Your task to perform on an android device: What is the news today? Image 0: 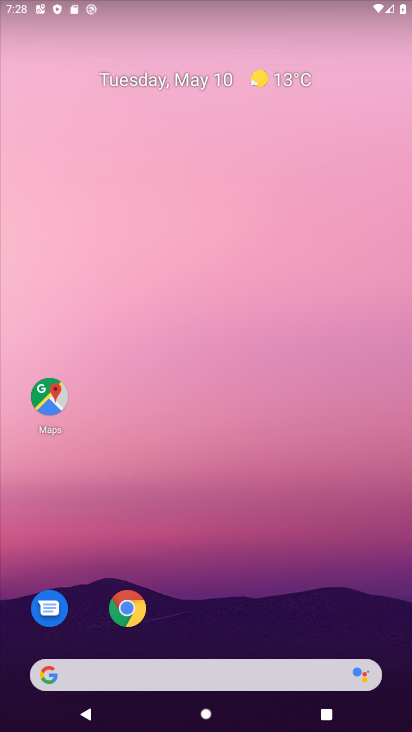
Step 0: drag from (224, 548) to (201, 243)
Your task to perform on an android device: What is the news today? Image 1: 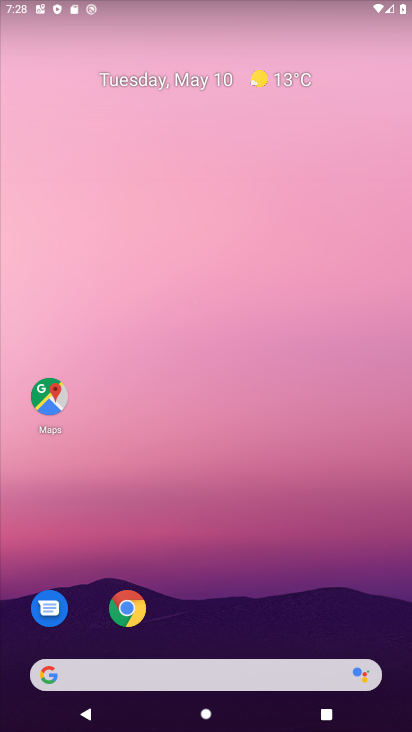
Step 1: click (188, 688)
Your task to perform on an android device: What is the news today? Image 2: 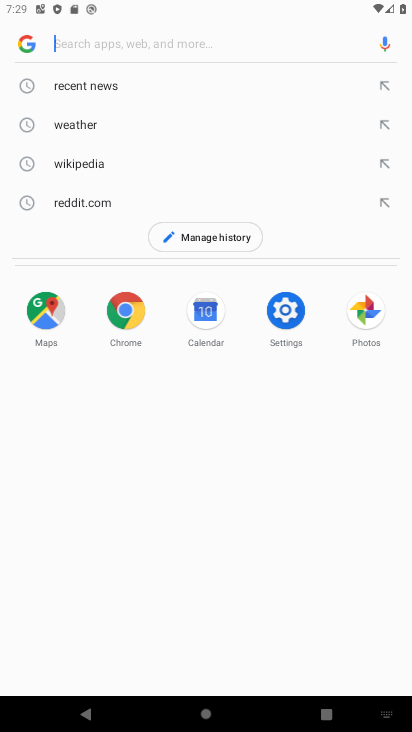
Step 2: type "news today"
Your task to perform on an android device: What is the news today? Image 3: 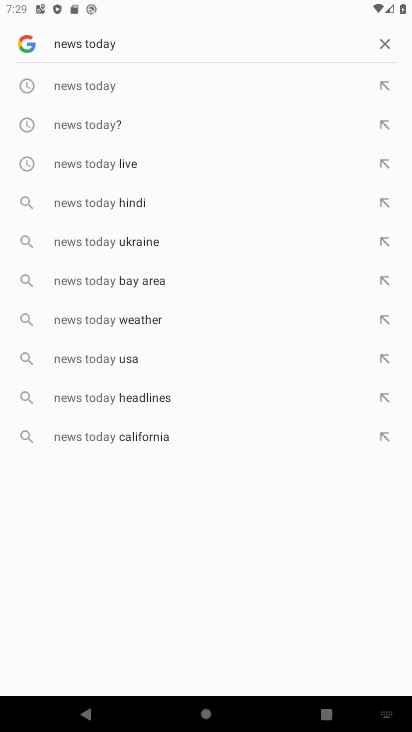
Step 3: click (84, 89)
Your task to perform on an android device: What is the news today? Image 4: 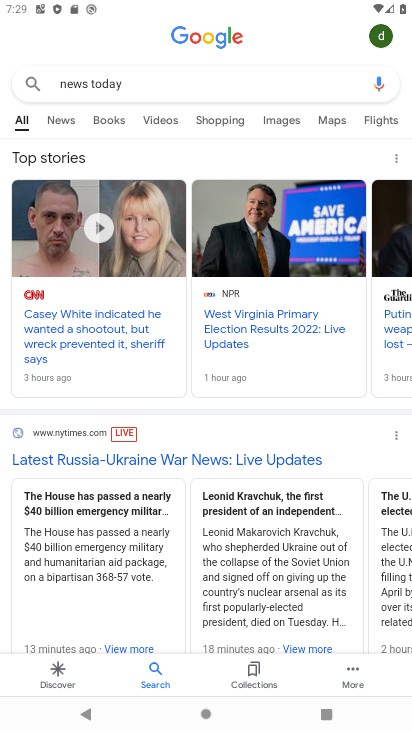
Step 4: task complete